Your task to perform on an android device: set an alarm Image 0: 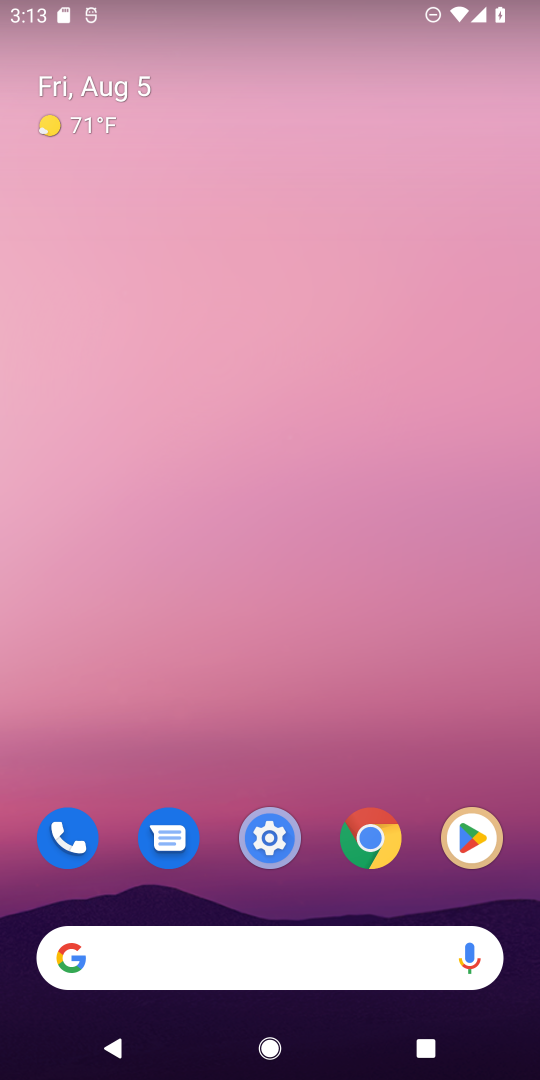
Step 0: drag from (422, 798) to (383, 103)
Your task to perform on an android device: set an alarm Image 1: 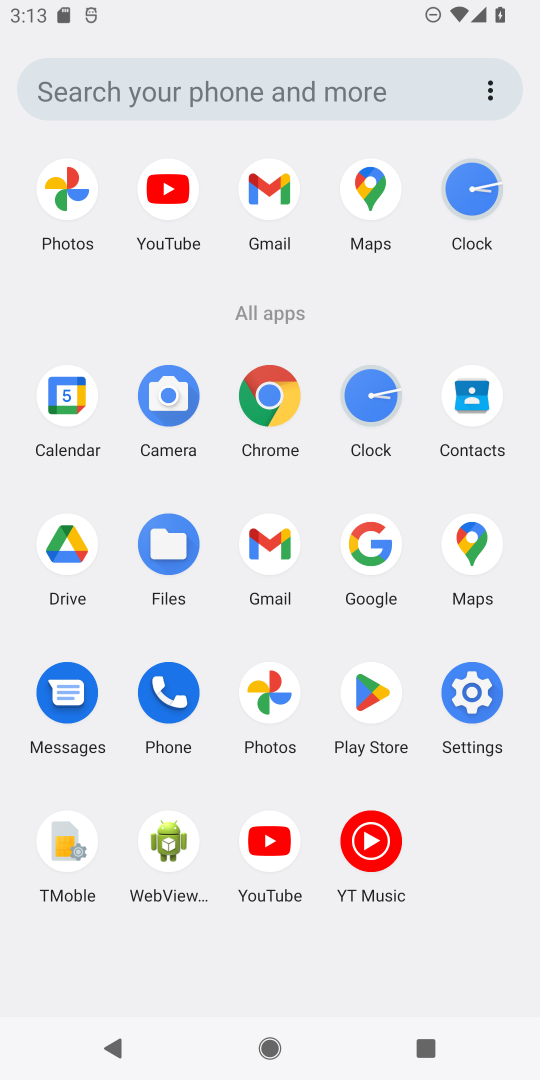
Step 1: click (482, 199)
Your task to perform on an android device: set an alarm Image 2: 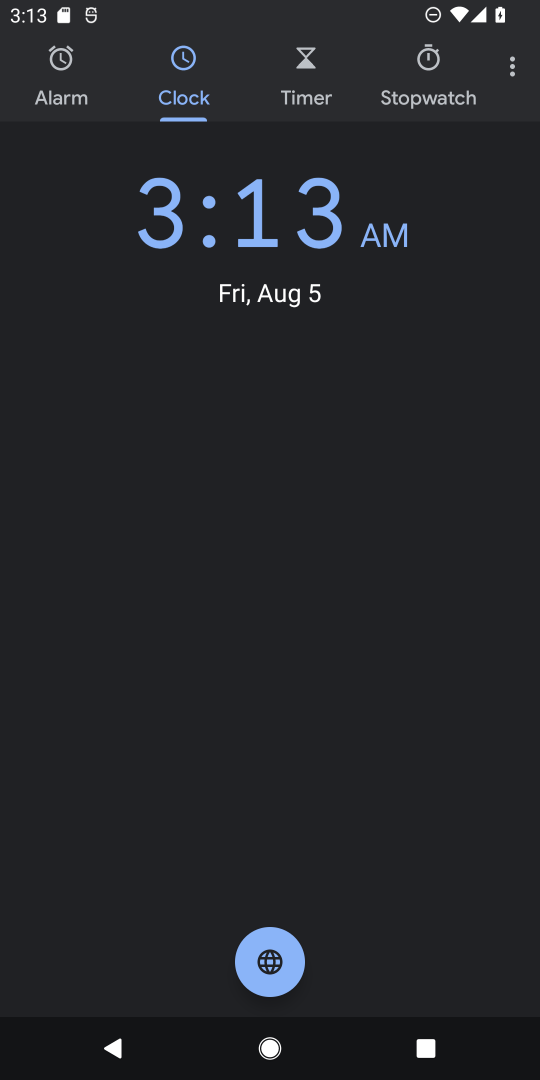
Step 2: click (51, 78)
Your task to perform on an android device: set an alarm Image 3: 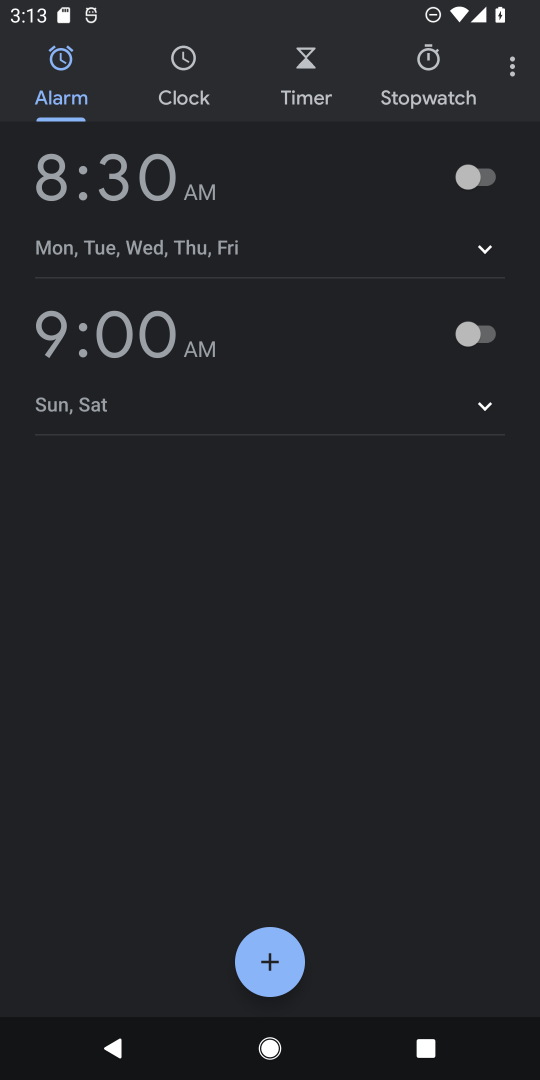
Step 3: click (471, 925)
Your task to perform on an android device: set an alarm Image 4: 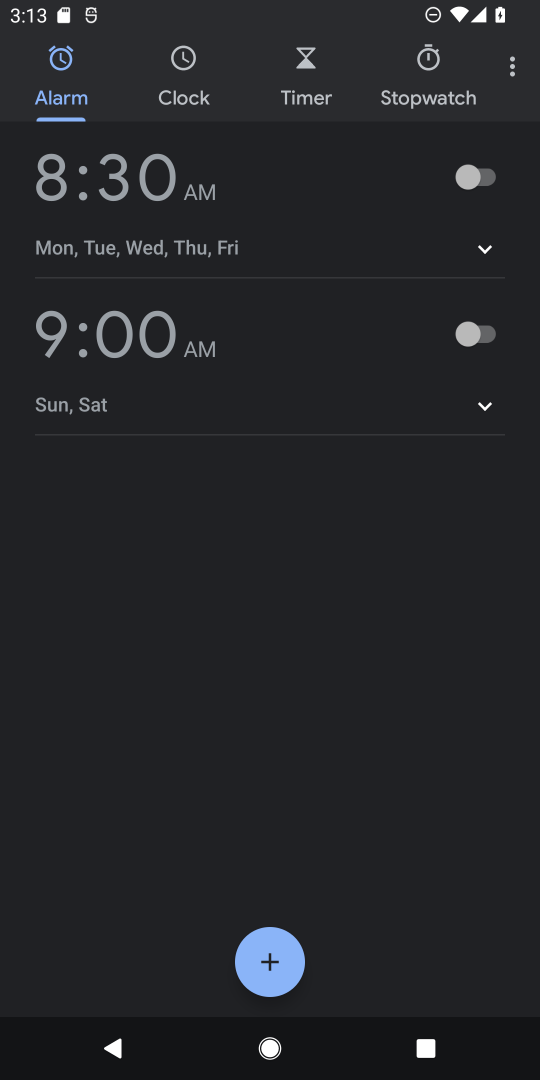
Step 4: click (273, 963)
Your task to perform on an android device: set an alarm Image 5: 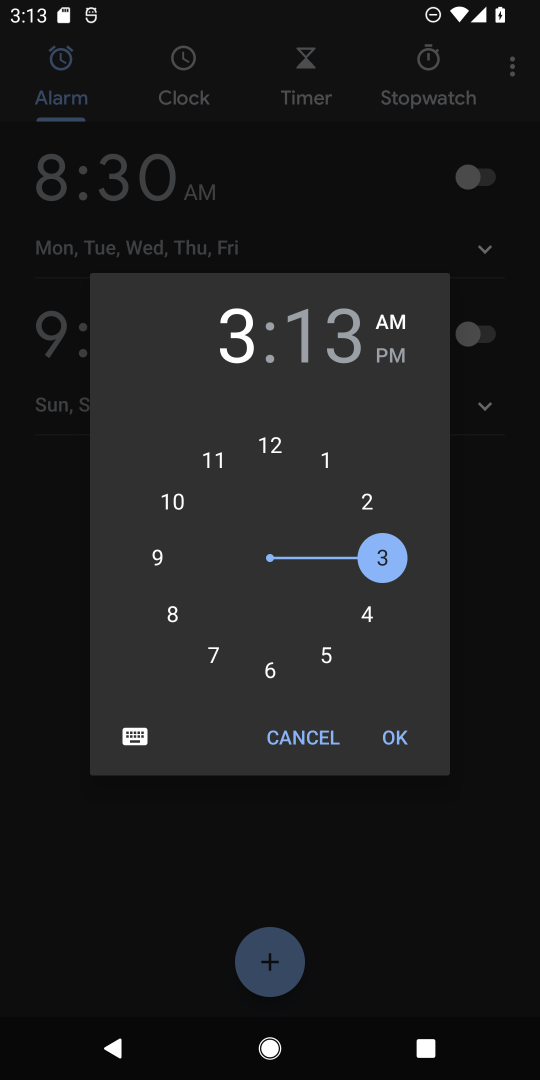
Step 5: click (405, 746)
Your task to perform on an android device: set an alarm Image 6: 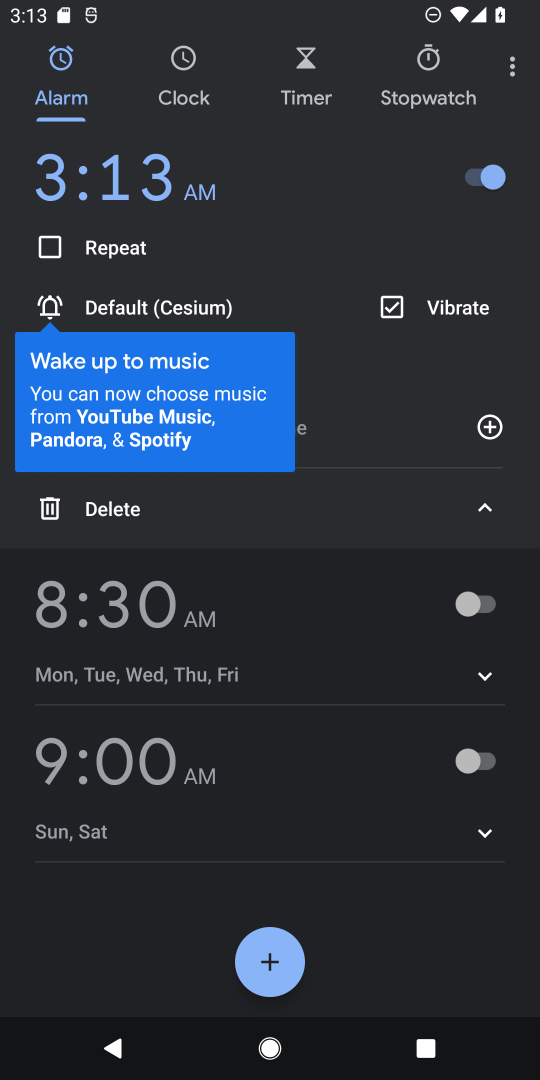
Step 6: task complete